Your task to perform on an android device: Go to Reddit.com Image 0: 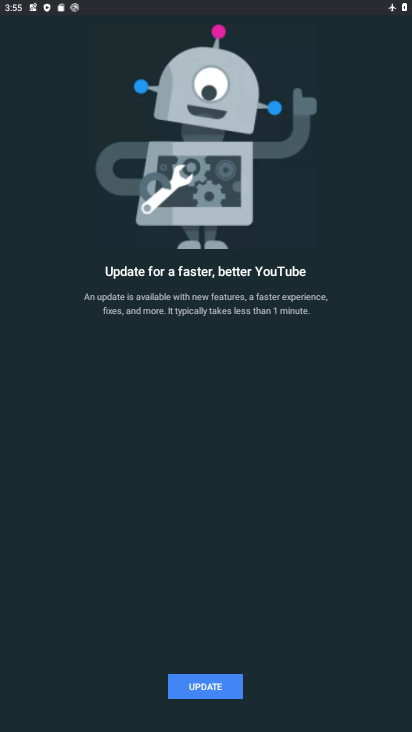
Step 0: press home button
Your task to perform on an android device: Go to Reddit.com Image 1: 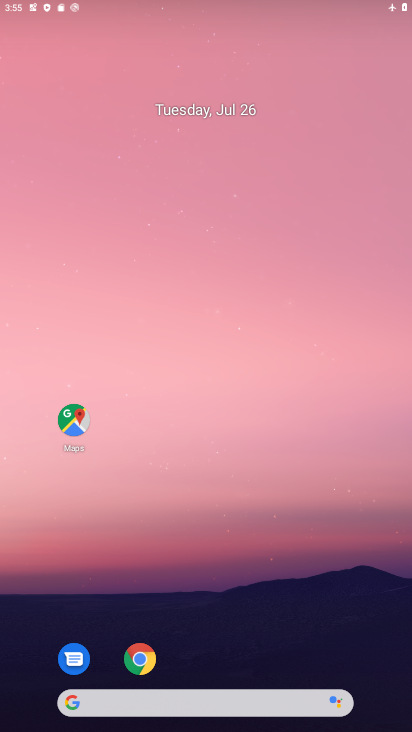
Step 1: drag from (244, 592) to (245, 118)
Your task to perform on an android device: Go to Reddit.com Image 2: 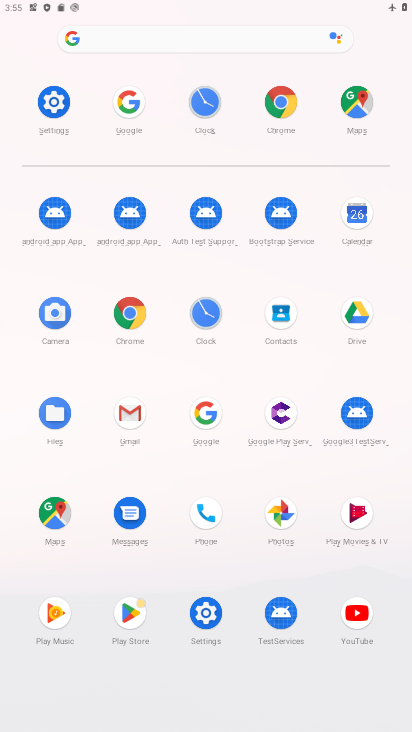
Step 2: click (284, 511)
Your task to perform on an android device: Go to Reddit.com Image 3: 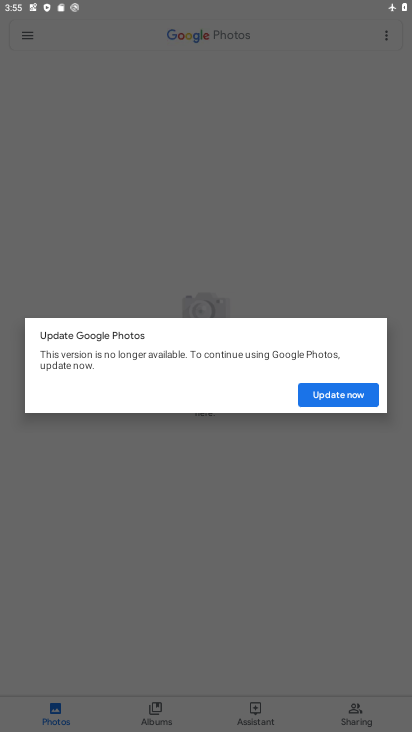
Step 3: press home button
Your task to perform on an android device: Go to Reddit.com Image 4: 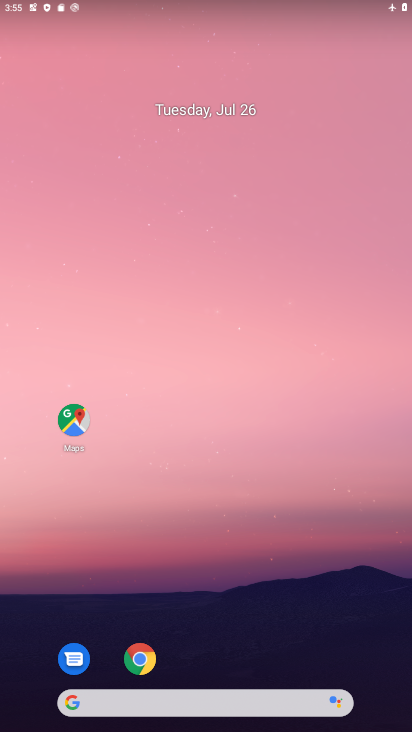
Step 4: drag from (270, 557) to (265, 49)
Your task to perform on an android device: Go to Reddit.com Image 5: 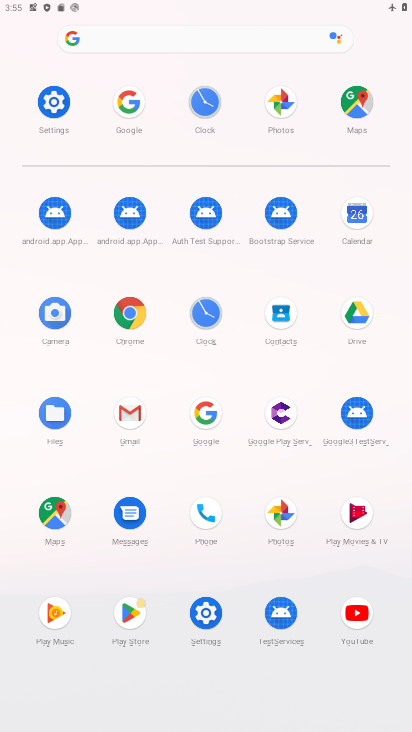
Step 5: click (134, 311)
Your task to perform on an android device: Go to Reddit.com Image 6: 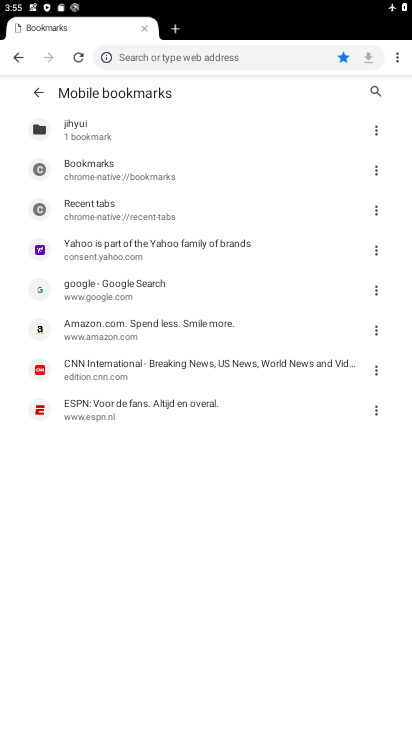
Step 6: click (22, 50)
Your task to perform on an android device: Go to Reddit.com Image 7: 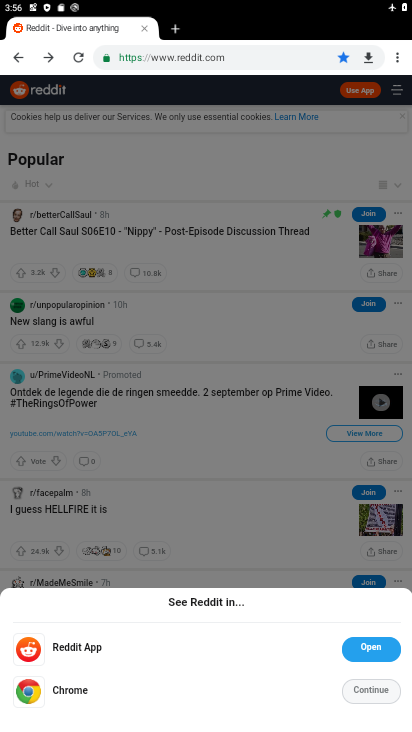
Step 7: task complete